Your task to perform on an android device: install app "Indeed Job Search" Image 0: 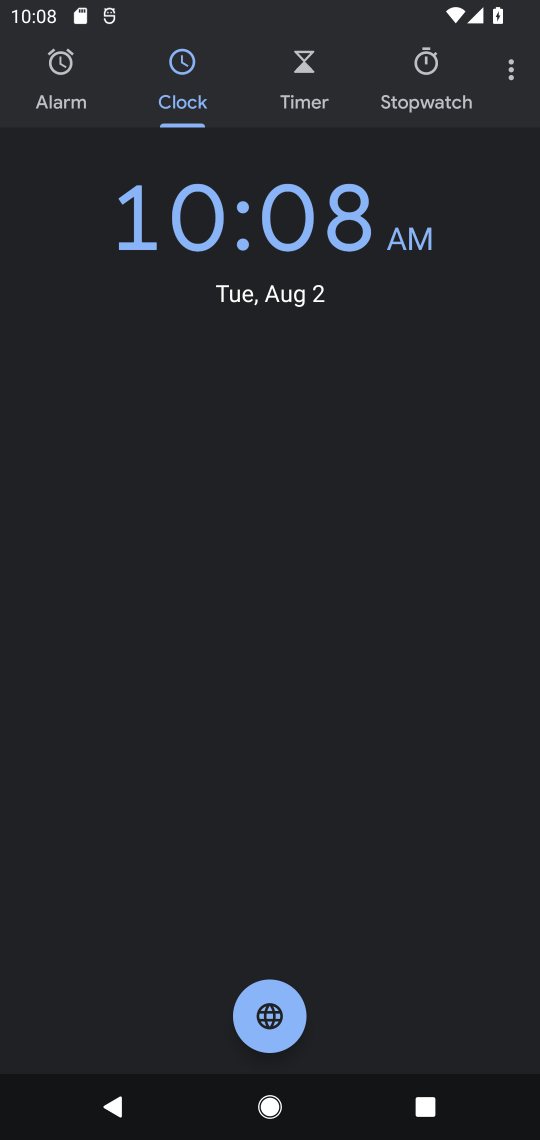
Step 0: press home button
Your task to perform on an android device: install app "Indeed Job Search" Image 1: 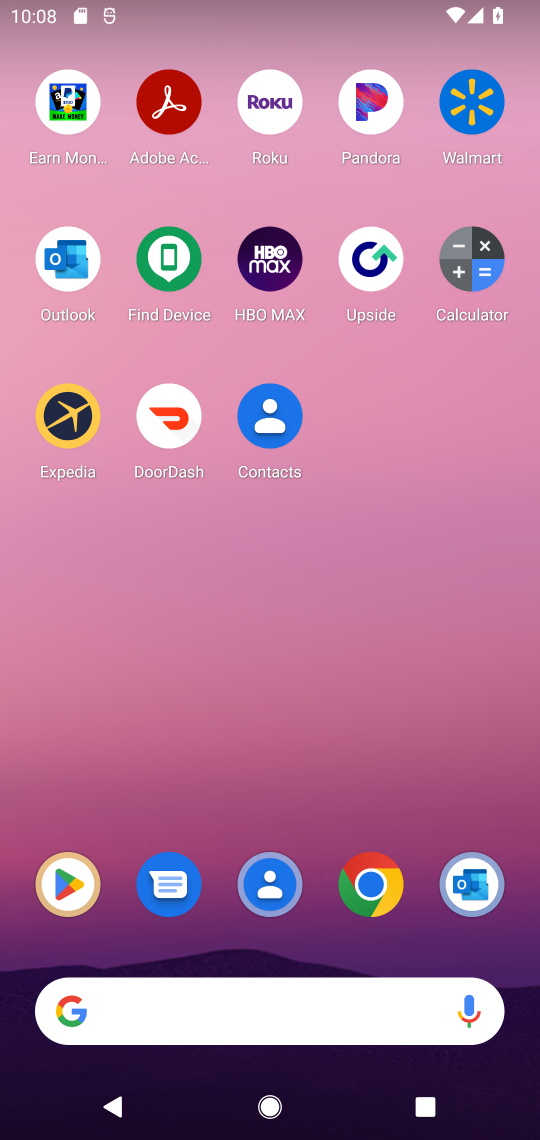
Step 1: click (70, 890)
Your task to perform on an android device: install app "Indeed Job Search" Image 2: 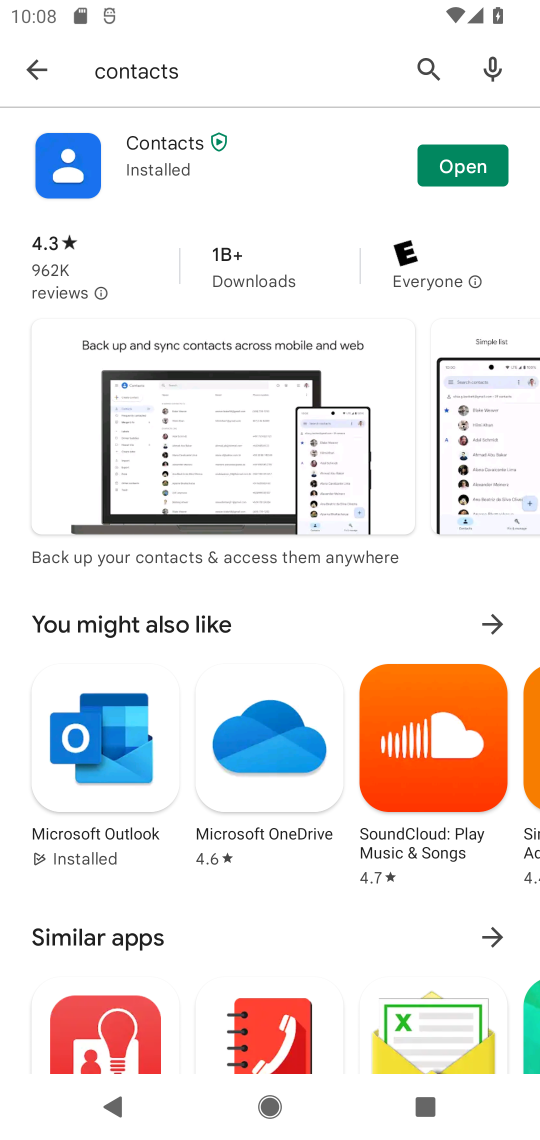
Step 2: click (171, 67)
Your task to perform on an android device: install app "Indeed Job Search" Image 3: 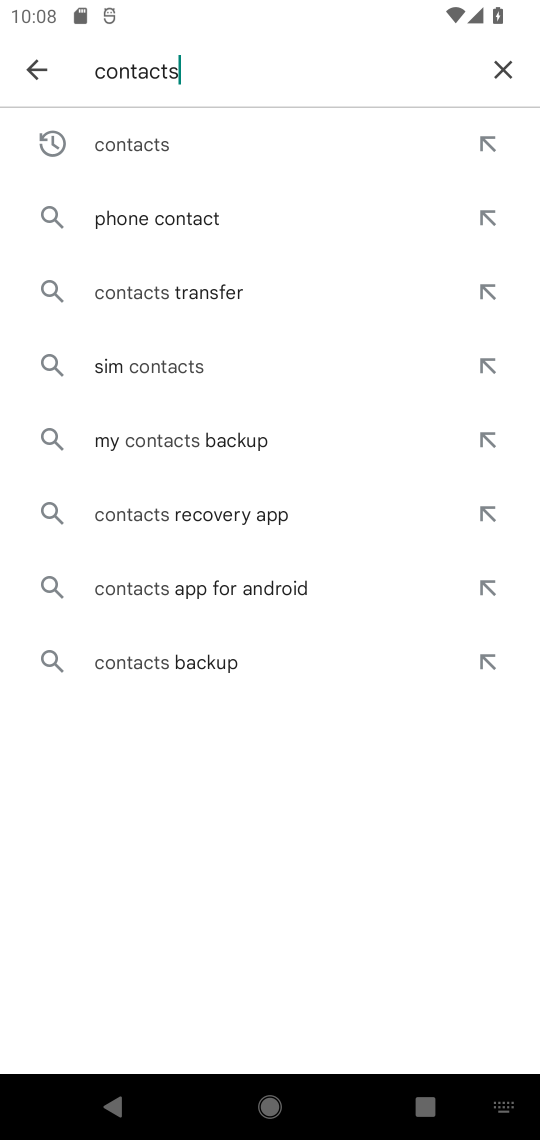
Step 3: click (503, 69)
Your task to perform on an android device: install app "Indeed Job Search" Image 4: 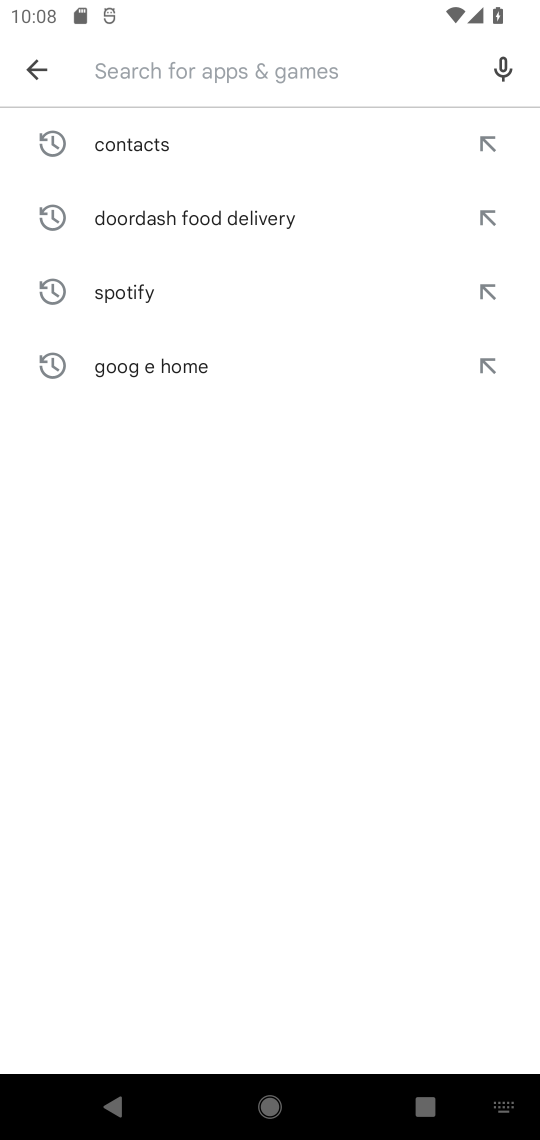
Step 4: type "indeed job search"
Your task to perform on an android device: install app "Indeed Job Search" Image 5: 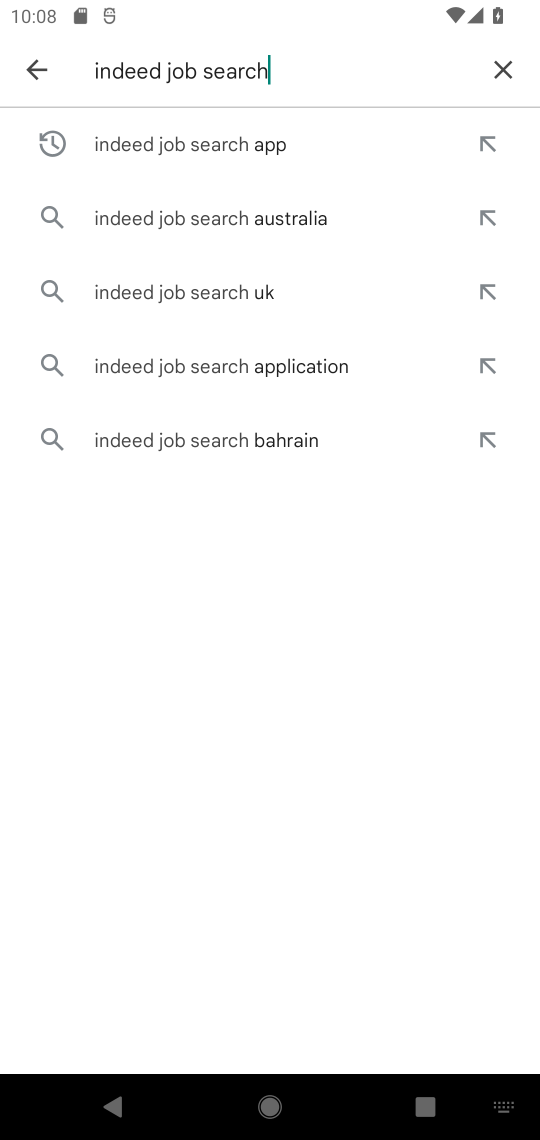
Step 5: click (156, 157)
Your task to perform on an android device: install app "Indeed Job Search" Image 6: 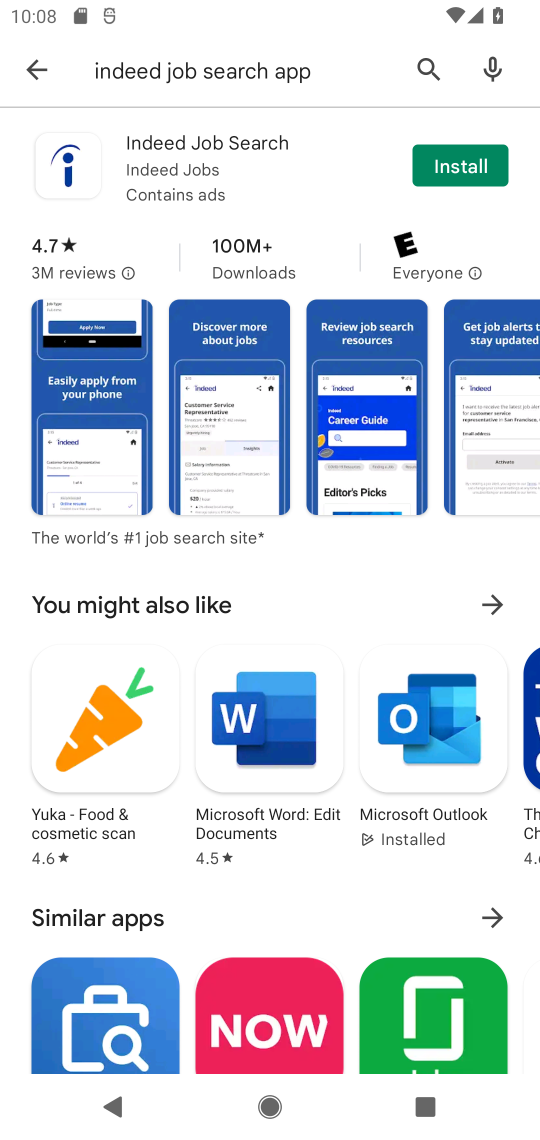
Step 6: click (464, 172)
Your task to perform on an android device: install app "Indeed Job Search" Image 7: 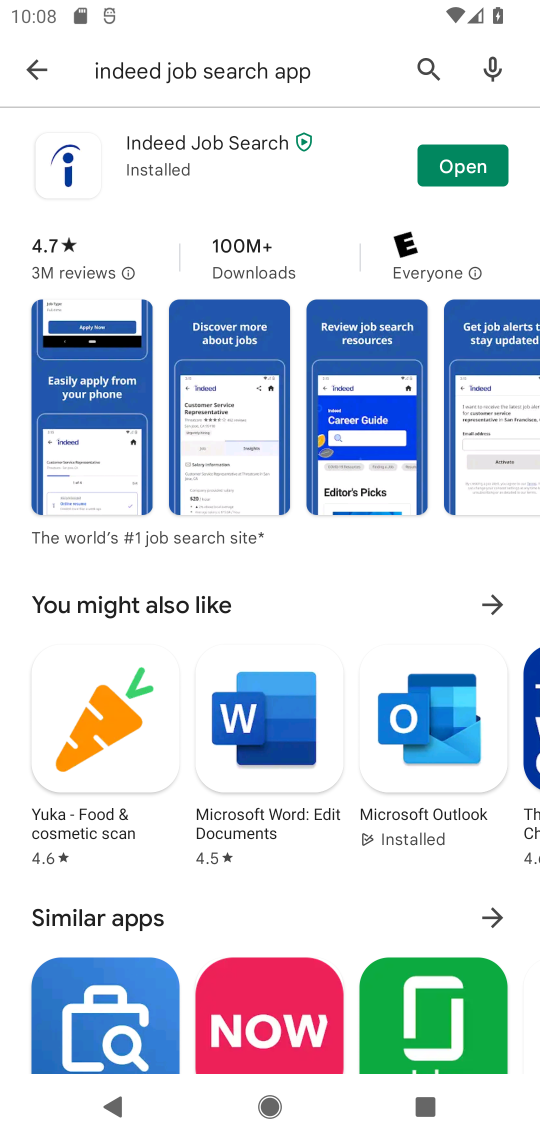
Step 7: task complete